Your task to perform on an android device: allow notifications from all sites in the chrome app Image 0: 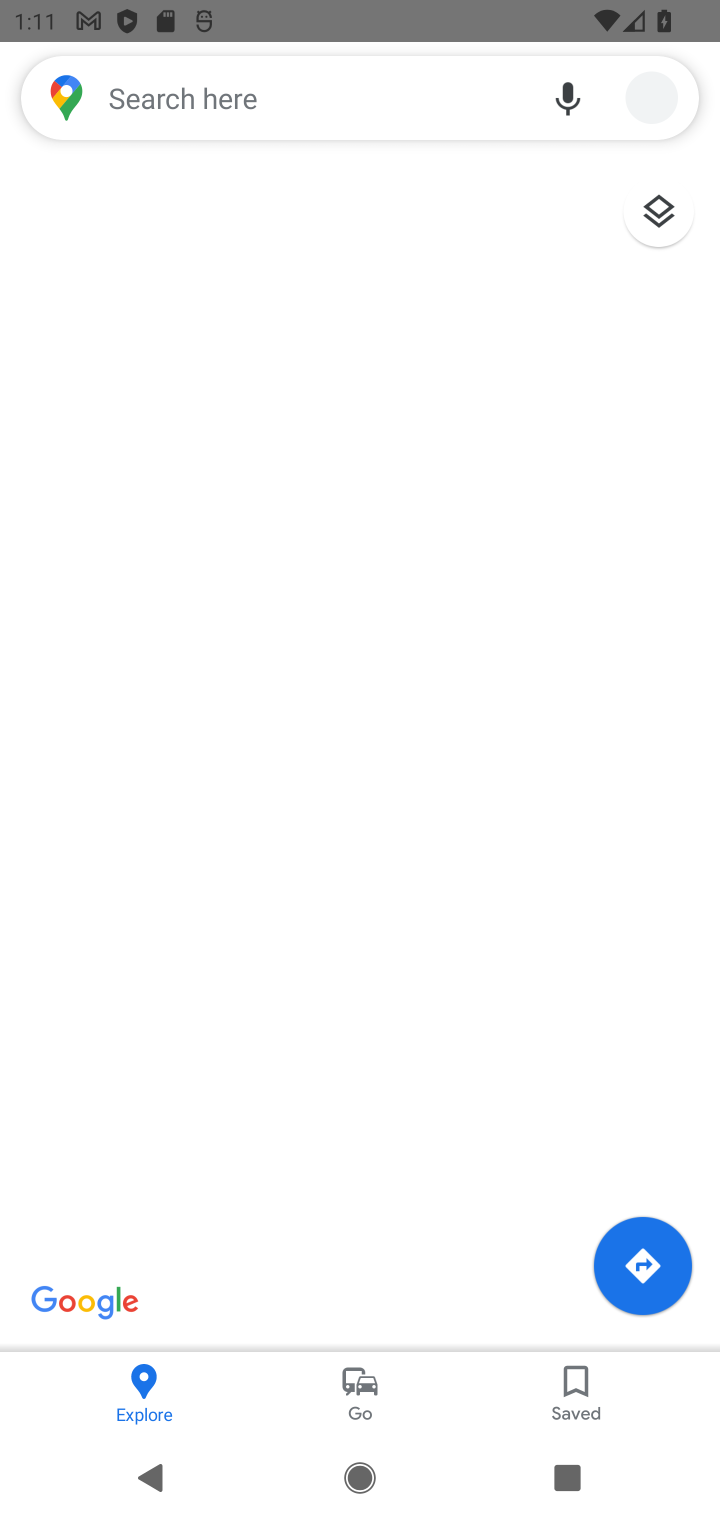
Step 0: press home button
Your task to perform on an android device: allow notifications from all sites in the chrome app Image 1: 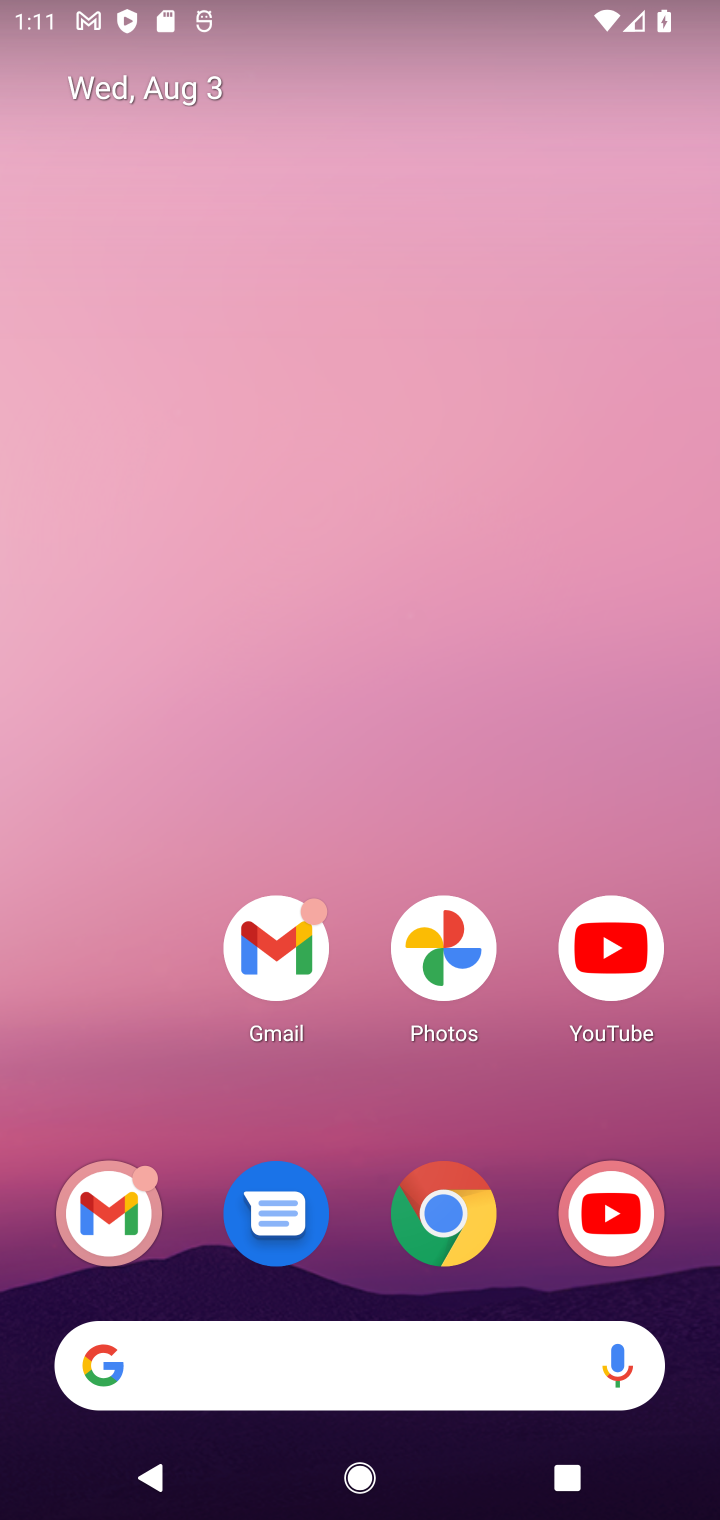
Step 1: drag from (534, 1328) to (452, 5)
Your task to perform on an android device: allow notifications from all sites in the chrome app Image 2: 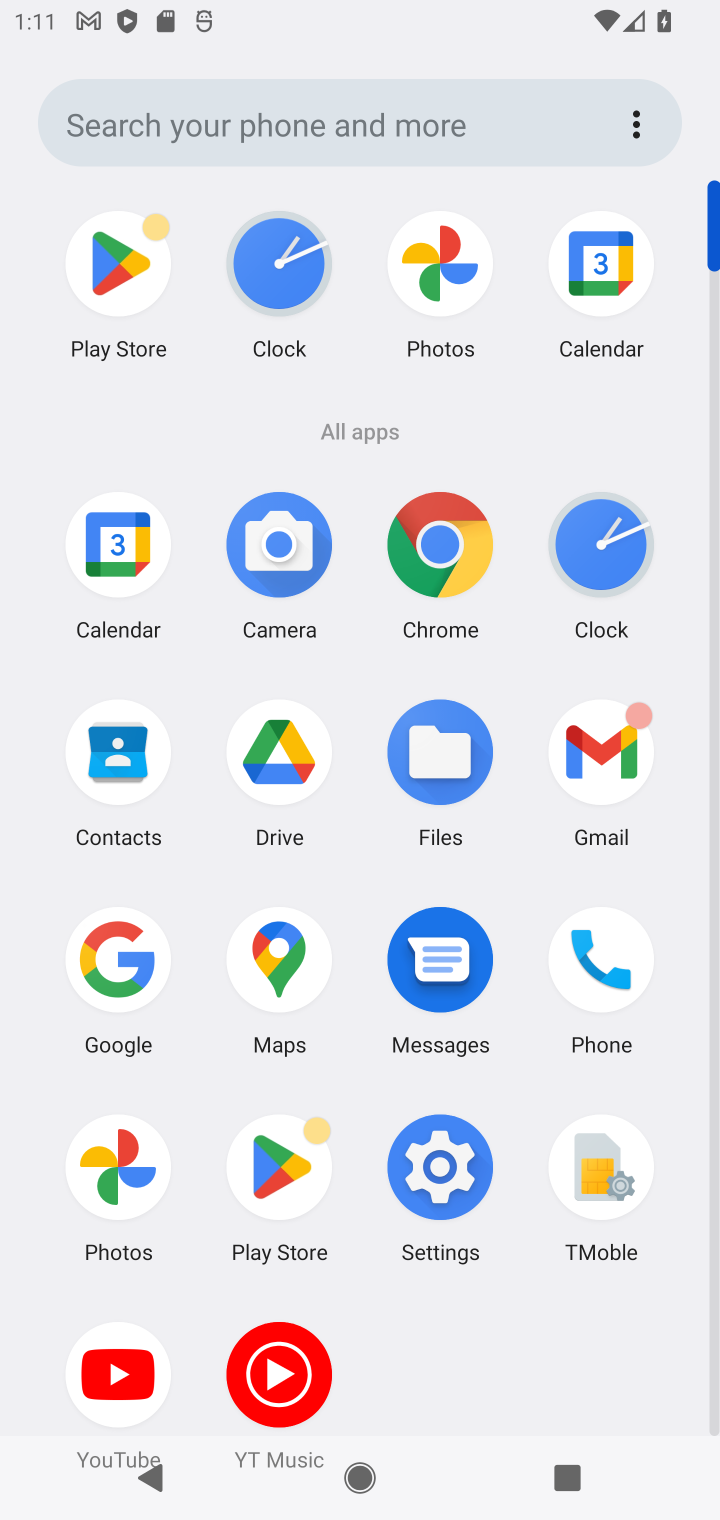
Step 2: click (445, 554)
Your task to perform on an android device: allow notifications from all sites in the chrome app Image 3: 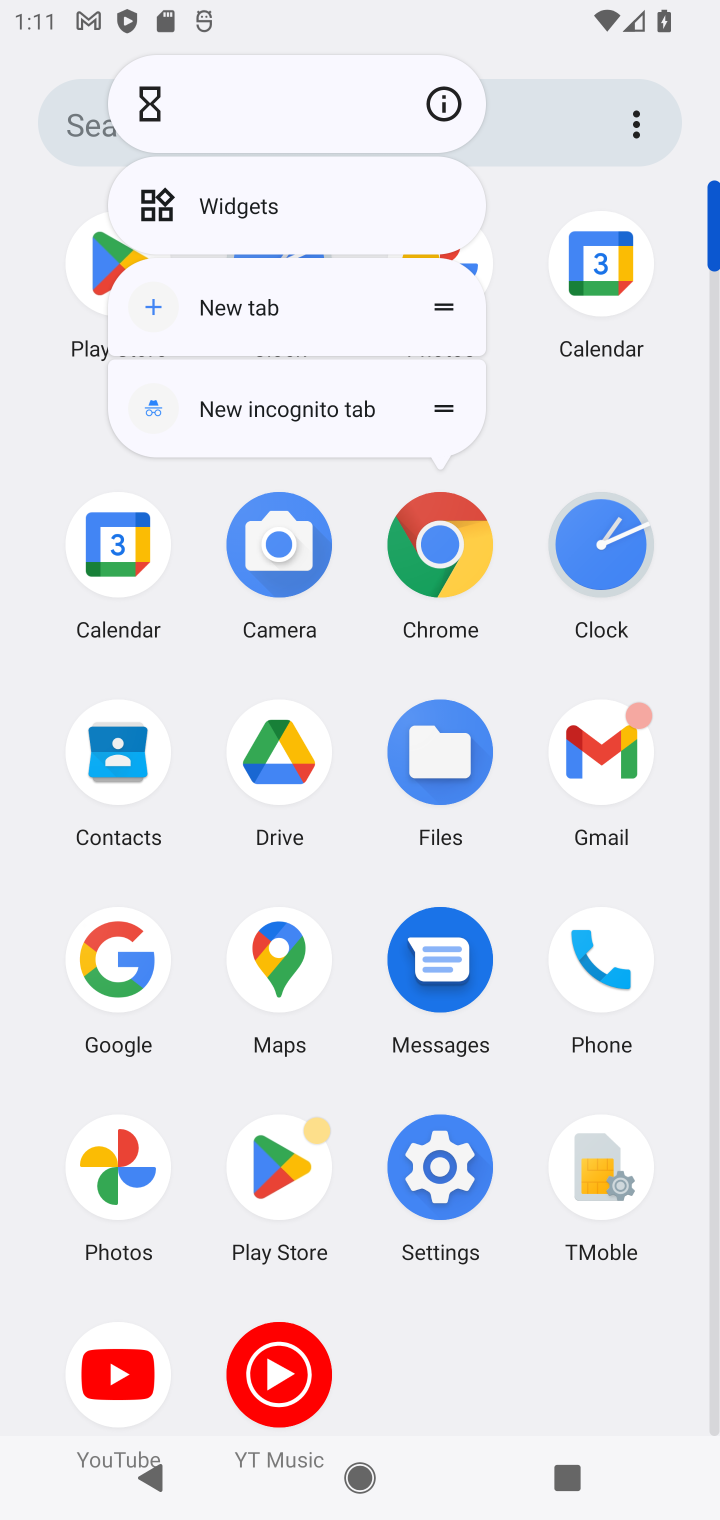
Step 3: click (430, 568)
Your task to perform on an android device: allow notifications from all sites in the chrome app Image 4: 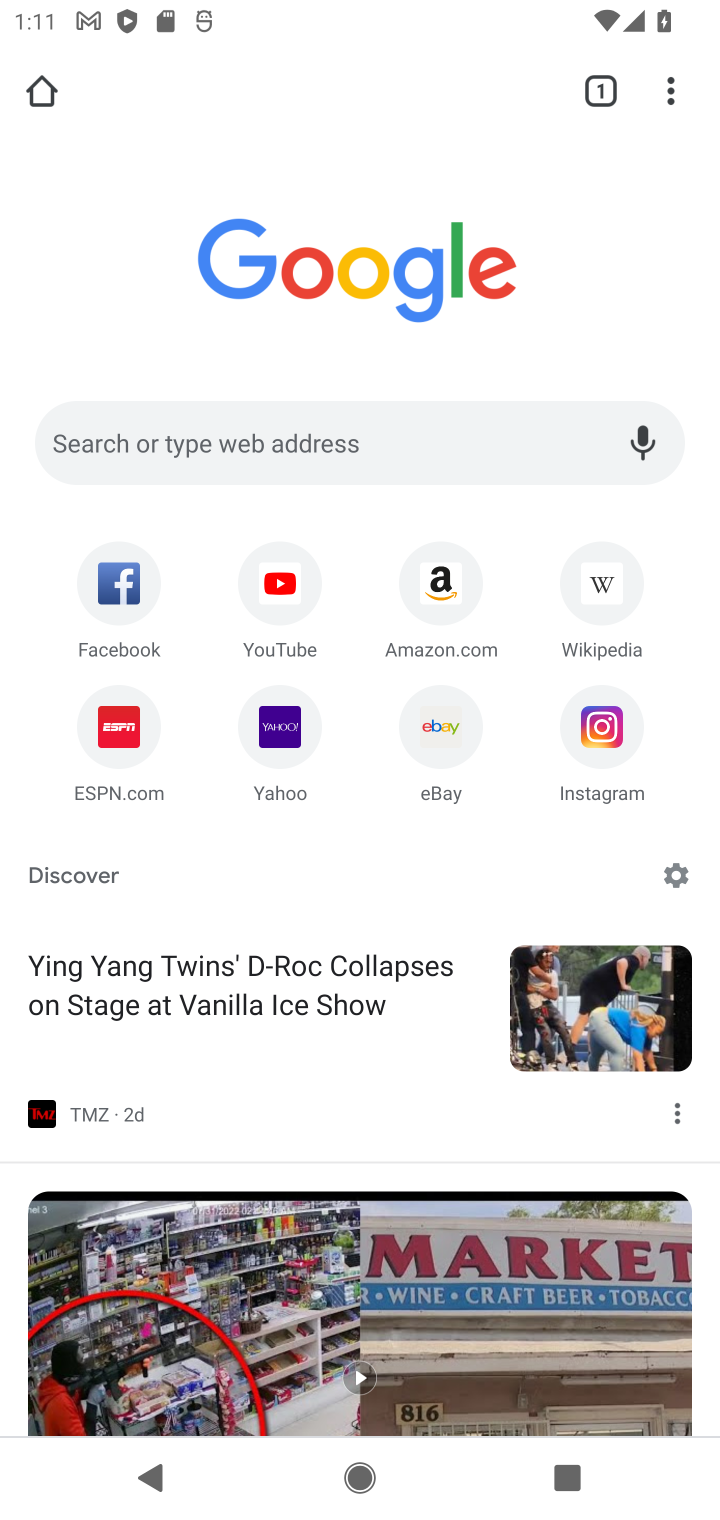
Step 4: drag from (660, 114) to (392, 833)
Your task to perform on an android device: allow notifications from all sites in the chrome app Image 5: 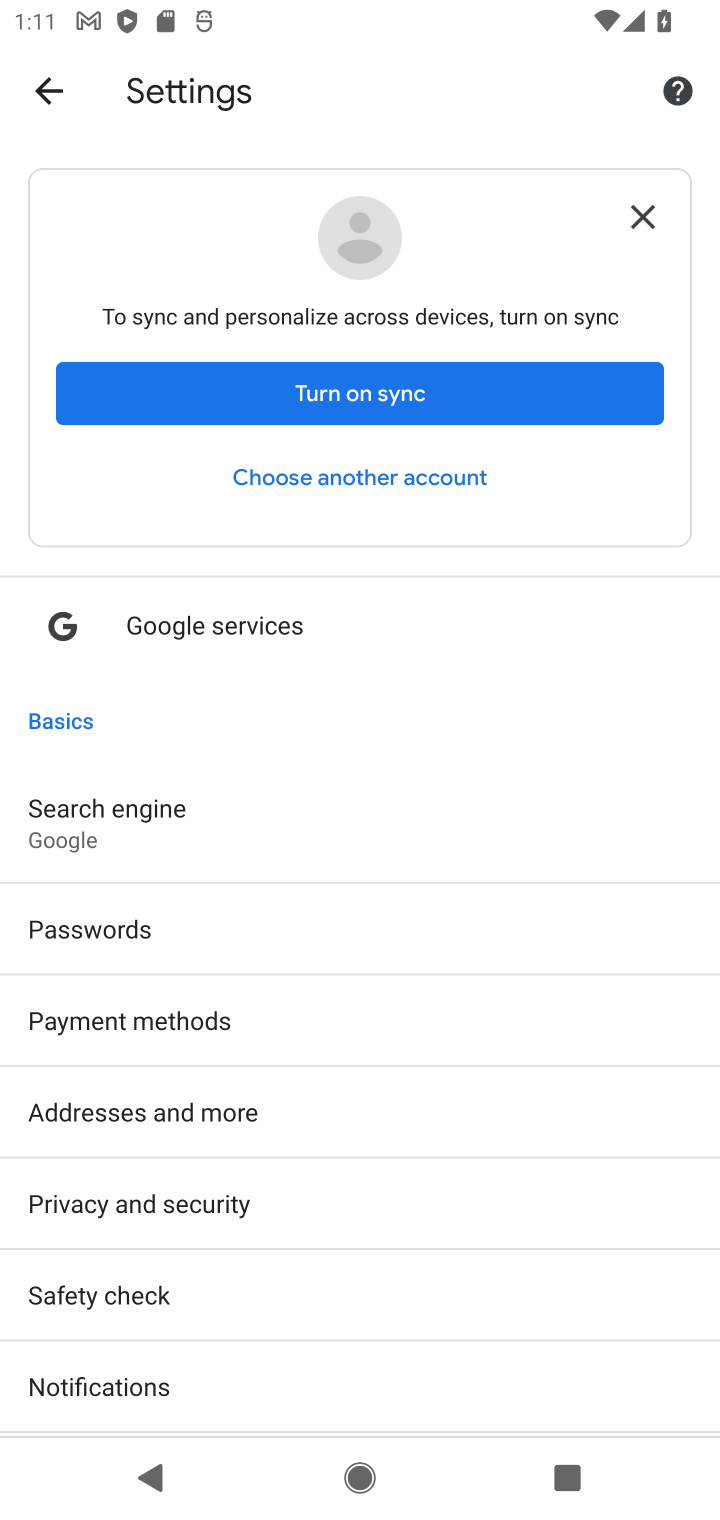
Step 5: drag from (209, 1335) to (263, 577)
Your task to perform on an android device: allow notifications from all sites in the chrome app Image 6: 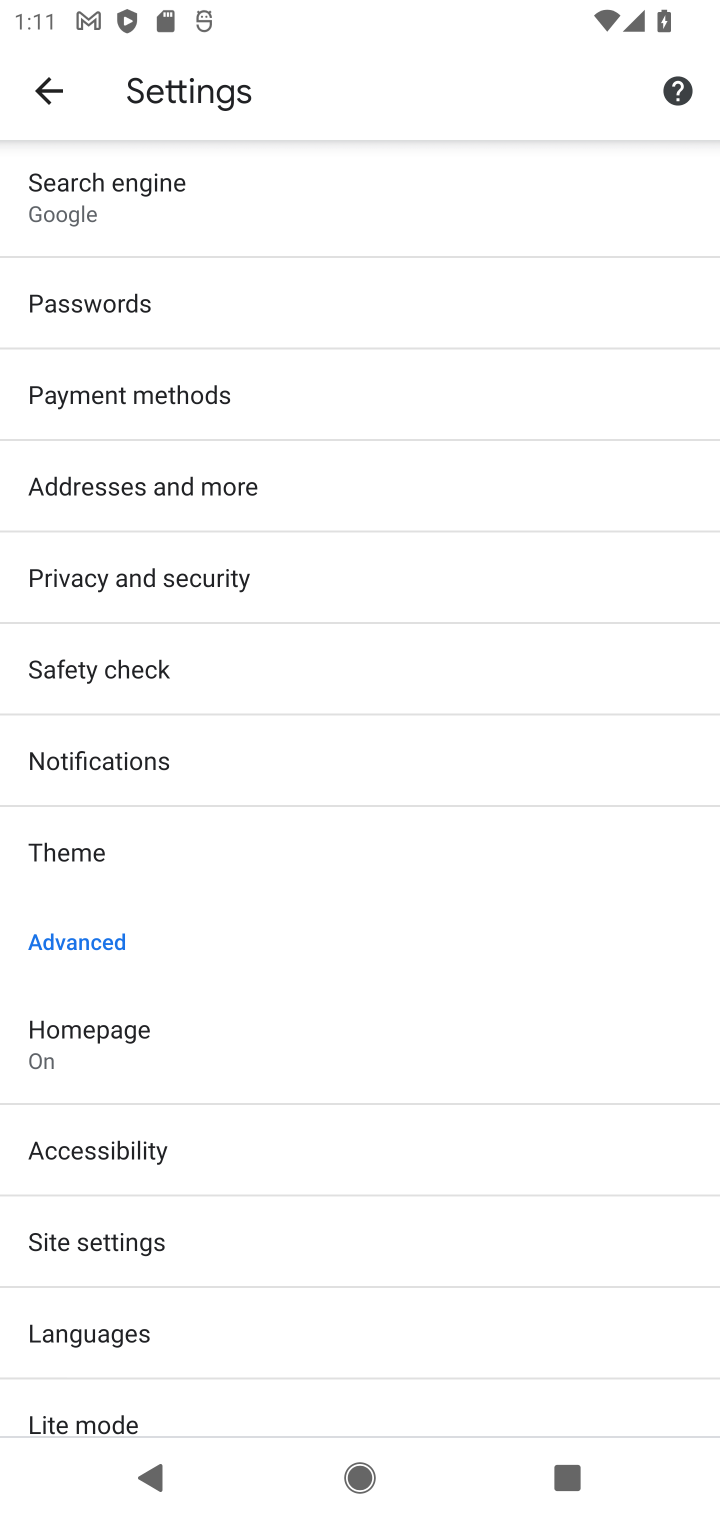
Step 6: click (174, 1232)
Your task to perform on an android device: allow notifications from all sites in the chrome app Image 7: 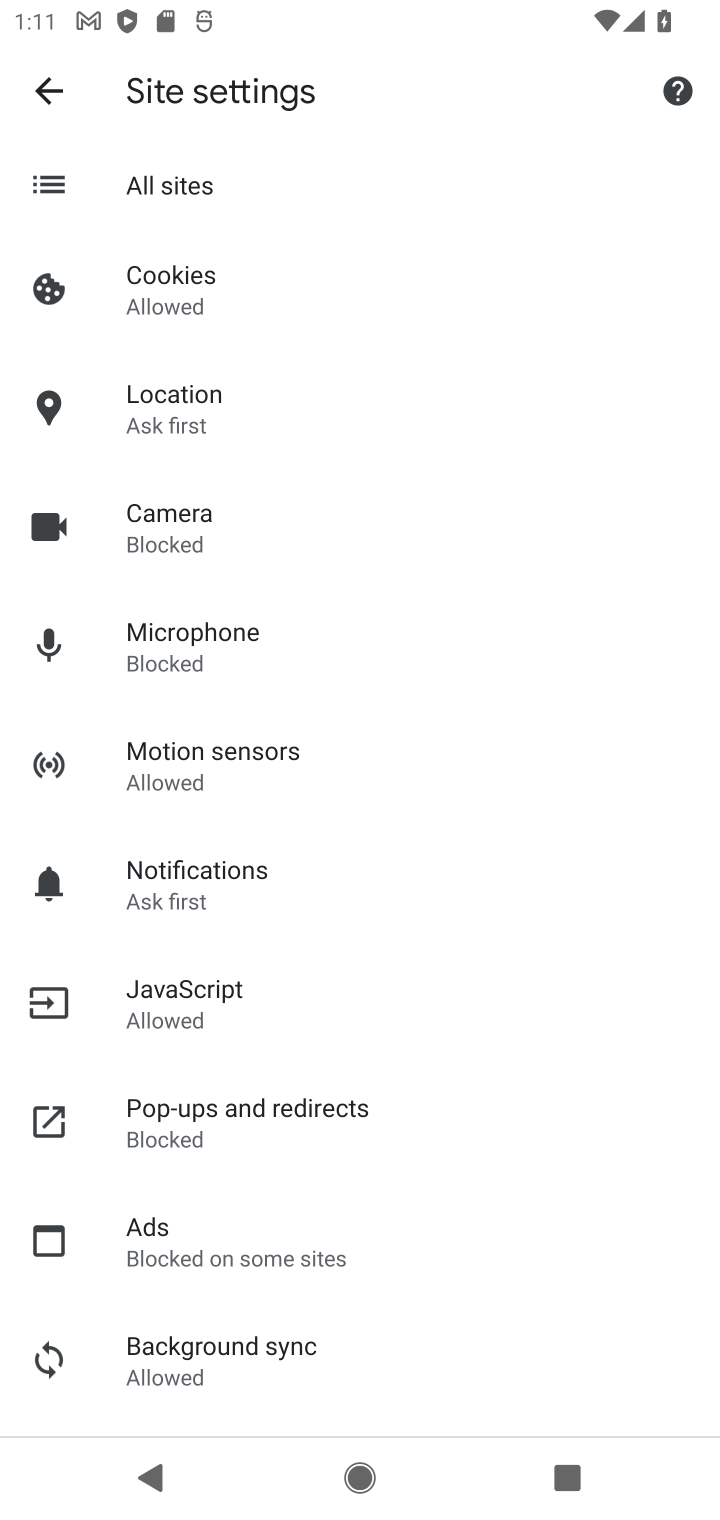
Step 7: click (196, 880)
Your task to perform on an android device: allow notifications from all sites in the chrome app Image 8: 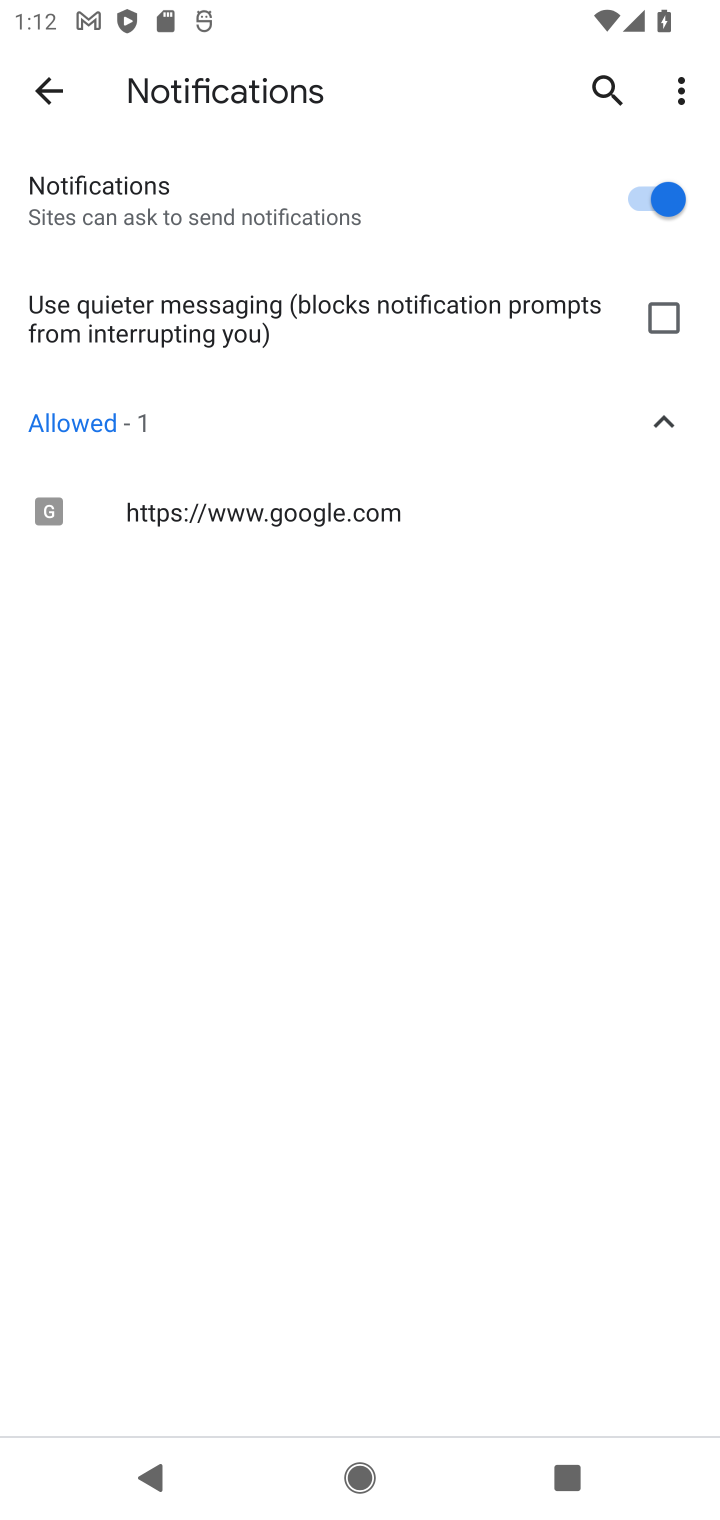
Step 8: task complete